Your task to perform on an android device: snooze an email in the gmail app Image 0: 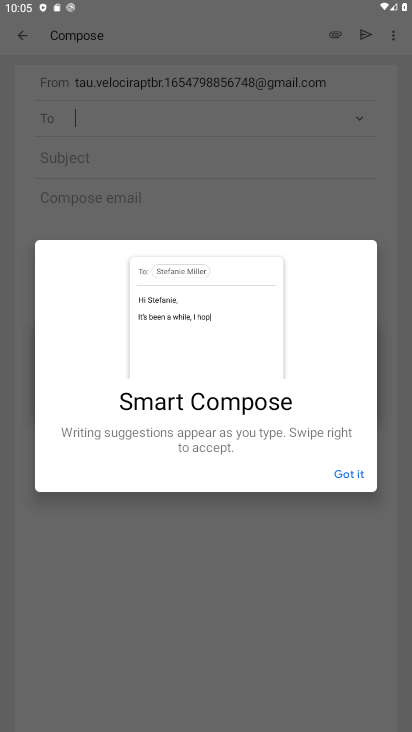
Step 0: press home button
Your task to perform on an android device: snooze an email in the gmail app Image 1: 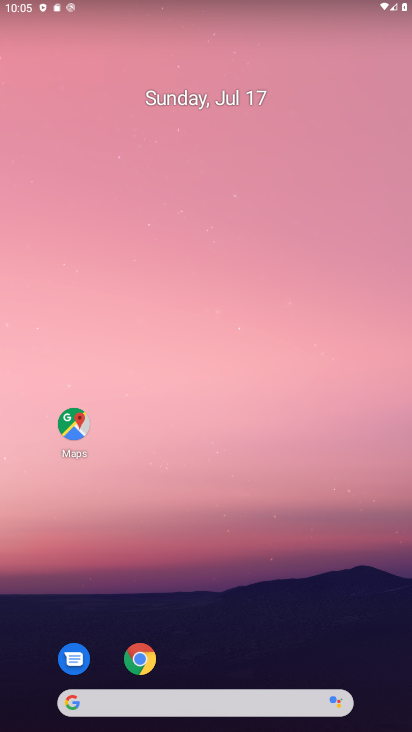
Step 1: drag from (227, 702) to (231, 76)
Your task to perform on an android device: snooze an email in the gmail app Image 2: 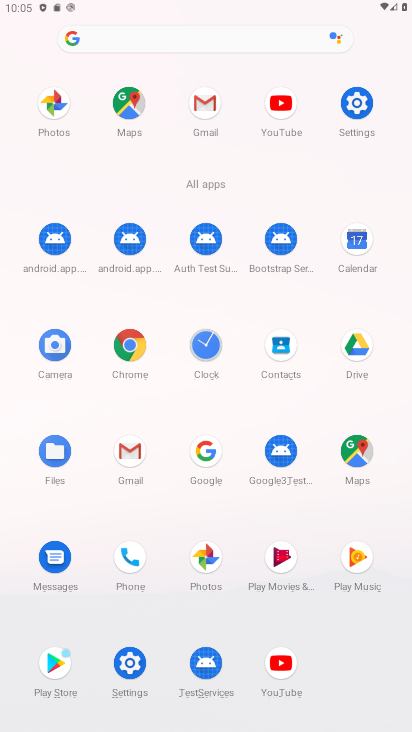
Step 2: click (128, 461)
Your task to perform on an android device: snooze an email in the gmail app Image 3: 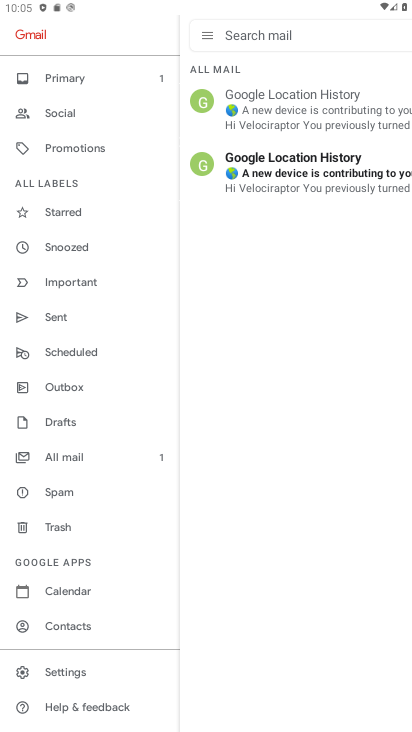
Step 3: click (70, 466)
Your task to perform on an android device: snooze an email in the gmail app Image 4: 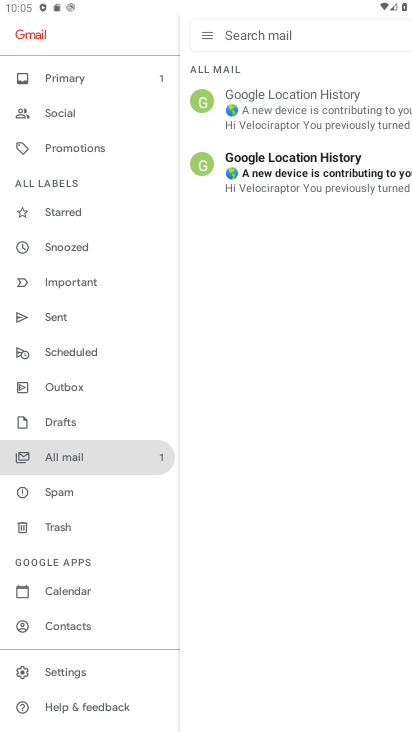
Step 4: click (203, 102)
Your task to perform on an android device: snooze an email in the gmail app Image 5: 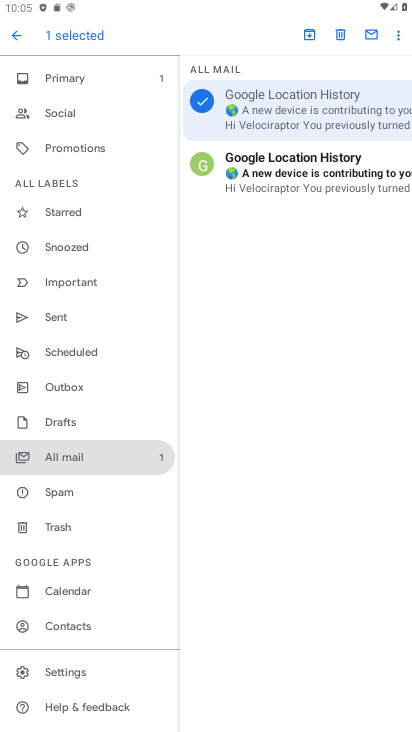
Step 5: click (395, 40)
Your task to perform on an android device: snooze an email in the gmail app Image 6: 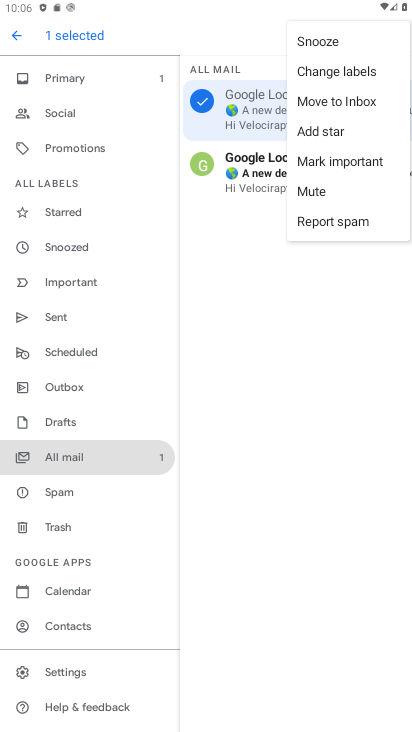
Step 6: click (317, 47)
Your task to perform on an android device: snooze an email in the gmail app Image 7: 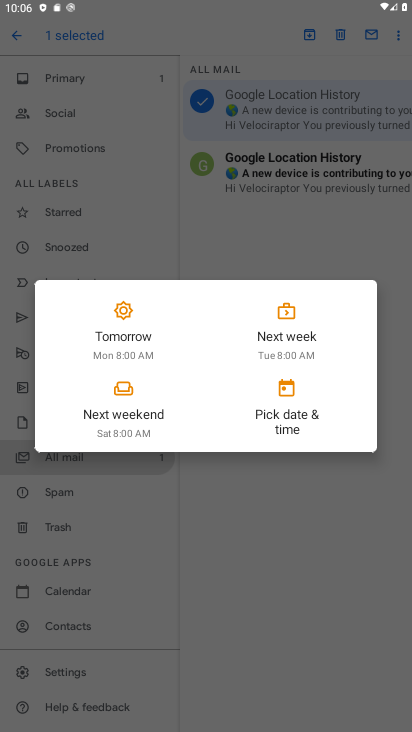
Step 7: click (123, 343)
Your task to perform on an android device: snooze an email in the gmail app Image 8: 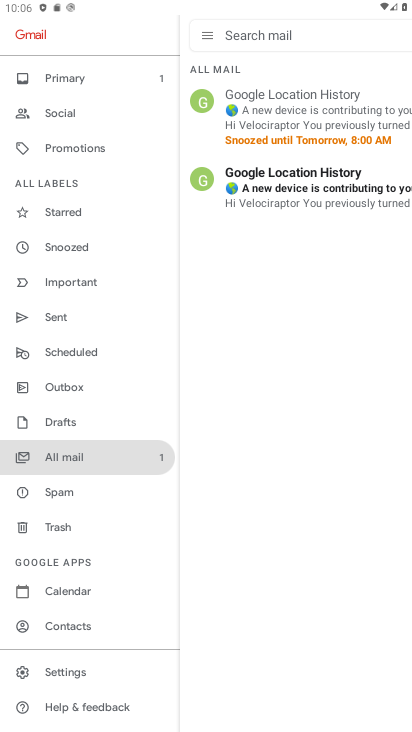
Step 8: task complete